Your task to perform on an android device: set the timer Image 0: 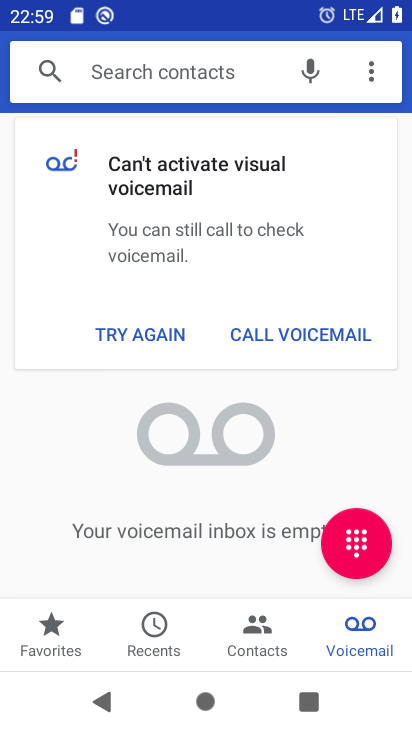
Step 0: press home button
Your task to perform on an android device: set the timer Image 1: 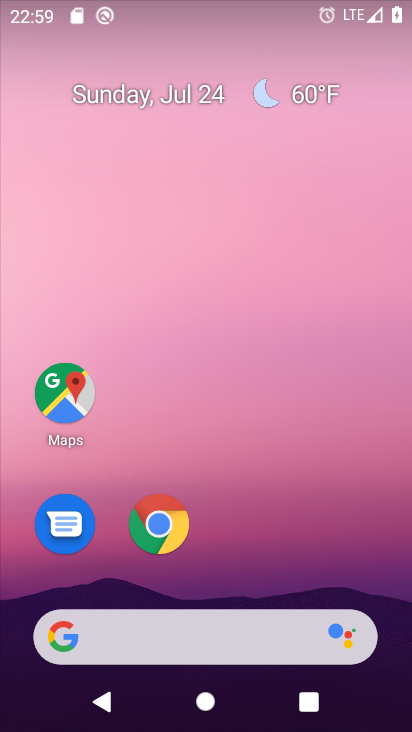
Step 1: drag from (256, 548) to (315, 22)
Your task to perform on an android device: set the timer Image 2: 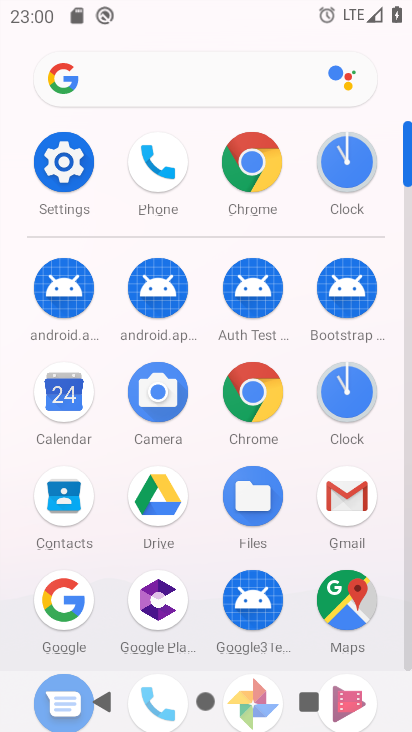
Step 2: click (357, 164)
Your task to perform on an android device: set the timer Image 3: 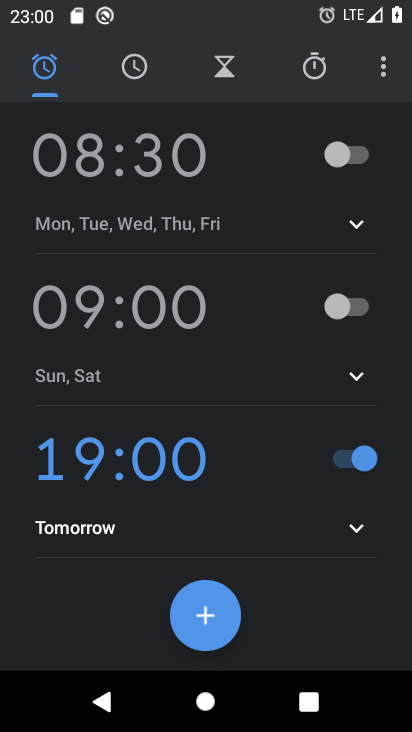
Step 3: click (384, 72)
Your task to perform on an android device: set the timer Image 4: 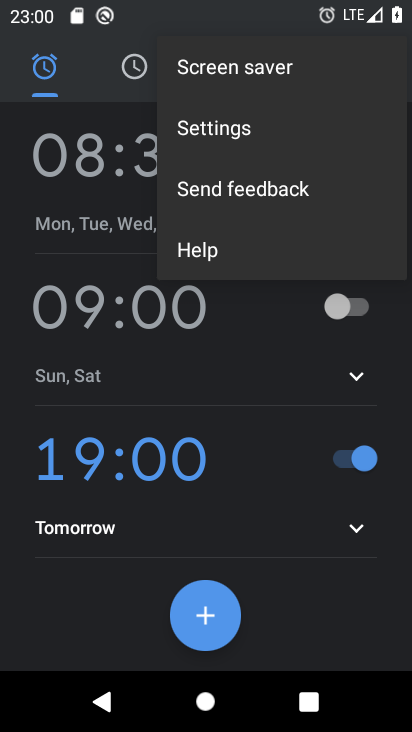
Step 4: click (233, 130)
Your task to perform on an android device: set the timer Image 5: 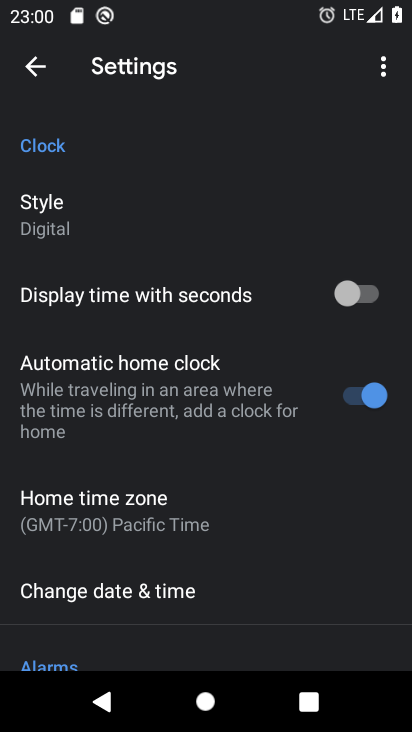
Step 5: click (39, 58)
Your task to perform on an android device: set the timer Image 6: 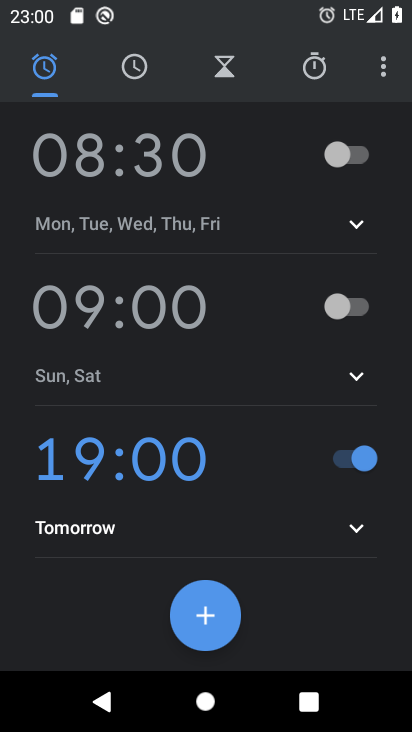
Step 6: click (231, 71)
Your task to perform on an android device: set the timer Image 7: 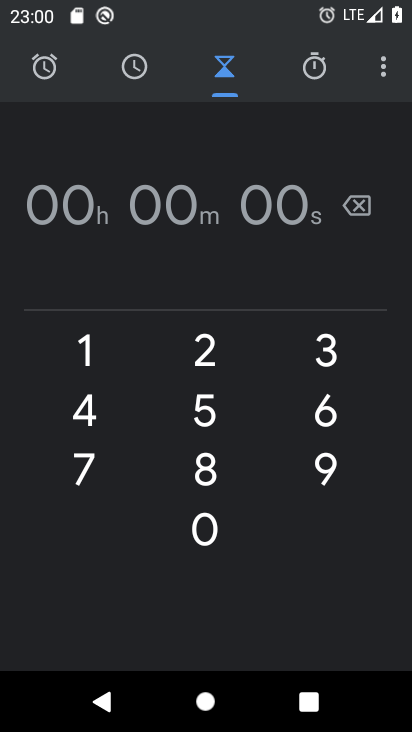
Step 7: task complete